Your task to perform on an android device: Open Yahoo.com Image 0: 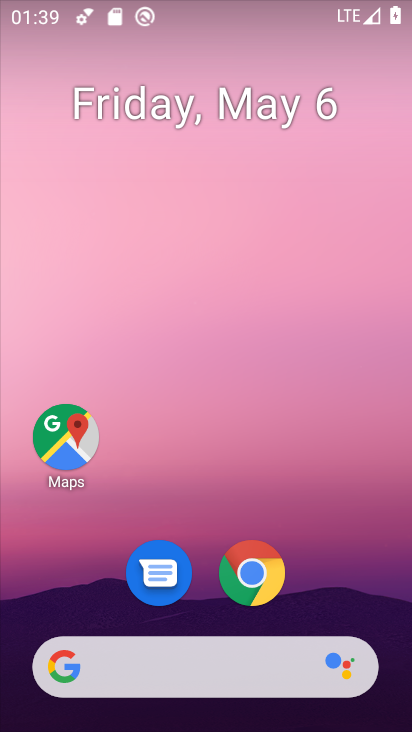
Step 0: drag from (350, 584) to (400, 192)
Your task to perform on an android device: Open Yahoo.com Image 1: 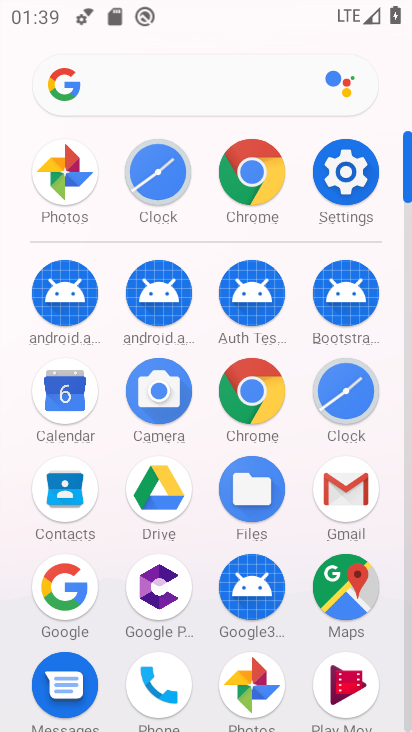
Step 1: click (249, 158)
Your task to perform on an android device: Open Yahoo.com Image 2: 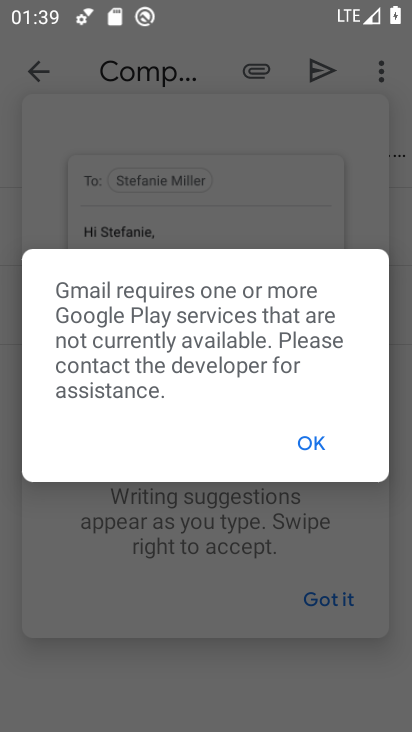
Step 2: click (310, 450)
Your task to perform on an android device: Open Yahoo.com Image 3: 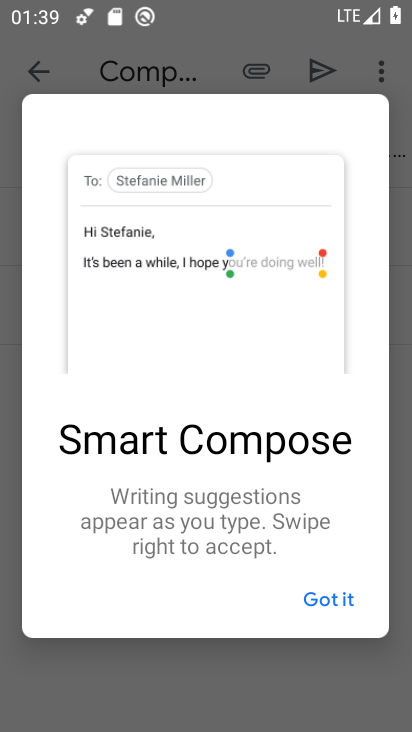
Step 3: click (319, 600)
Your task to perform on an android device: Open Yahoo.com Image 4: 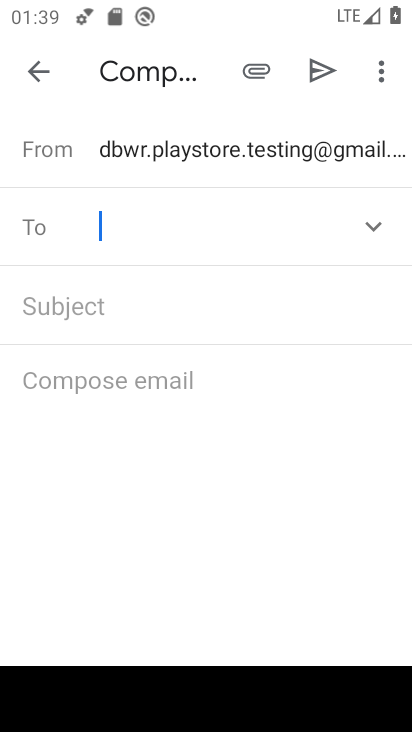
Step 4: click (54, 62)
Your task to perform on an android device: Open Yahoo.com Image 5: 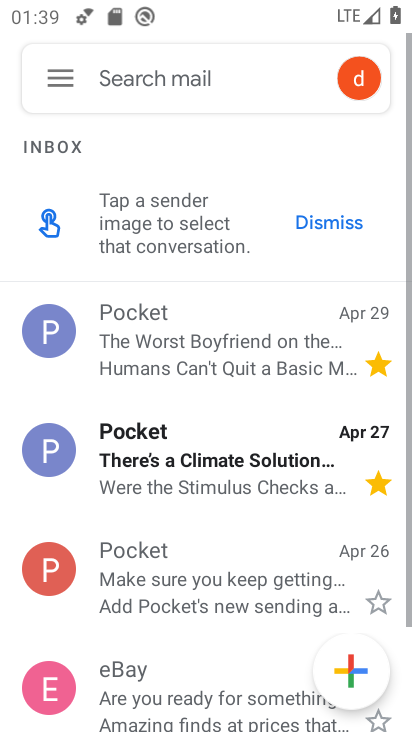
Step 5: press home button
Your task to perform on an android device: Open Yahoo.com Image 6: 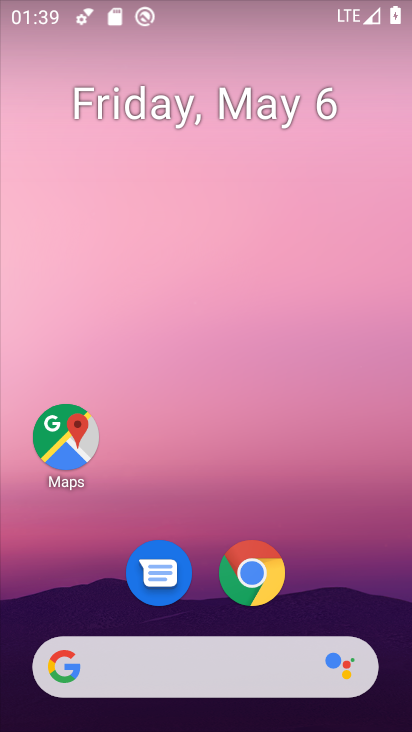
Step 6: drag from (336, 499) to (353, 263)
Your task to perform on an android device: Open Yahoo.com Image 7: 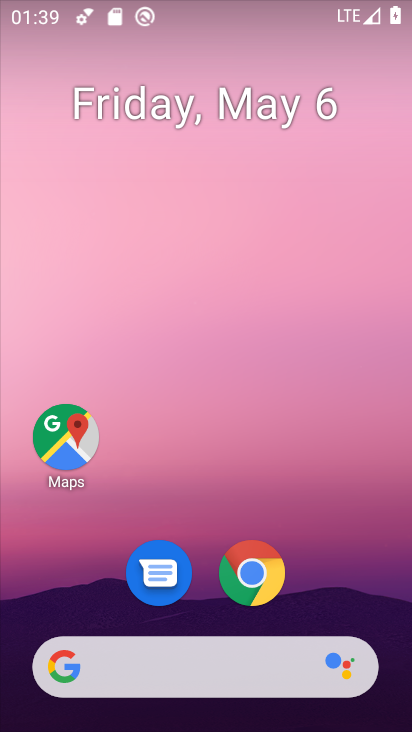
Step 7: drag from (321, 467) to (351, 220)
Your task to perform on an android device: Open Yahoo.com Image 8: 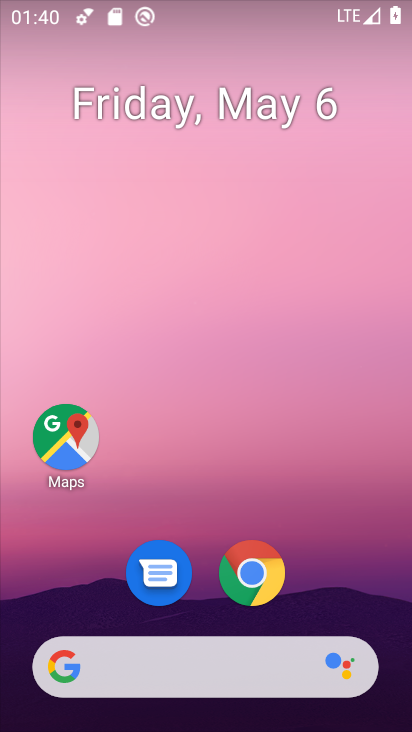
Step 8: drag from (297, 599) to (337, 82)
Your task to perform on an android device: Open Yahoo.com Image 9: 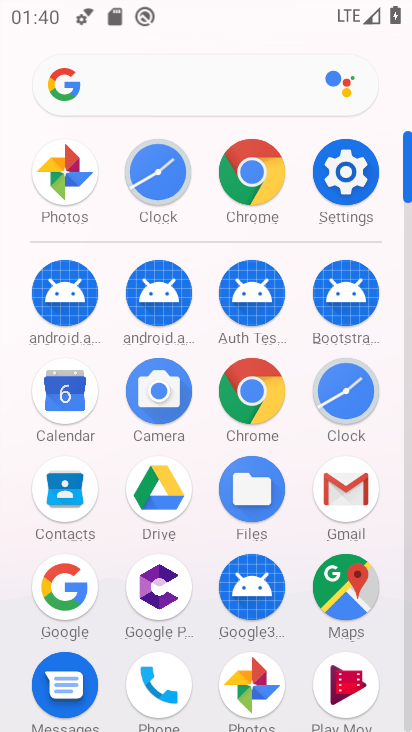
Step 9: click (244, 173)
Your task to perform on an android device: Open Yahoo.com Image 10: 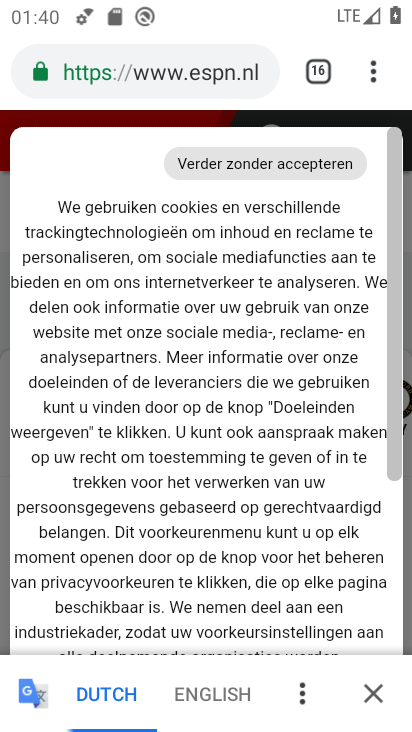
Step 10: click (353, 64)
Your task to perform on an android device: Open Yahoo.com Image 11: 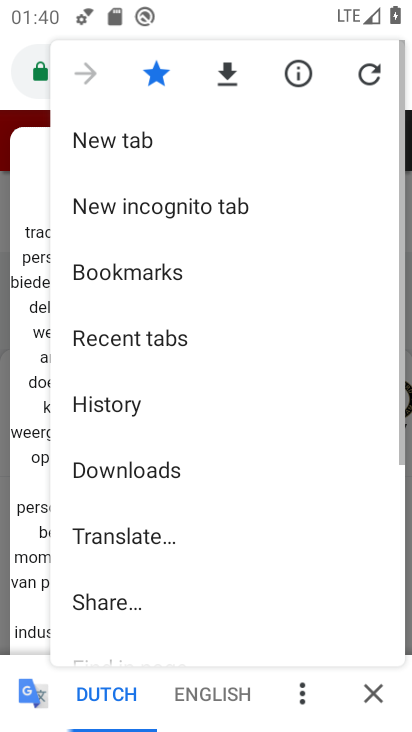
Step 11: click (127, 143)
Your task to perform on an android device: Open Yahoo.com Image 12: 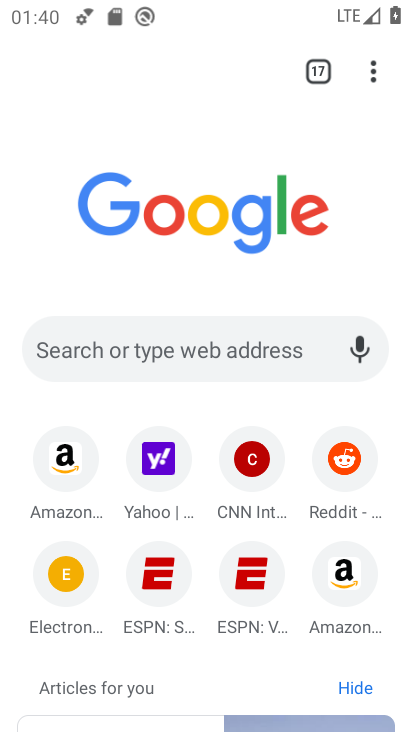
Step 12: click (160, 439)
Your task to perform on an android device: Open Yahoo.com Image 13: 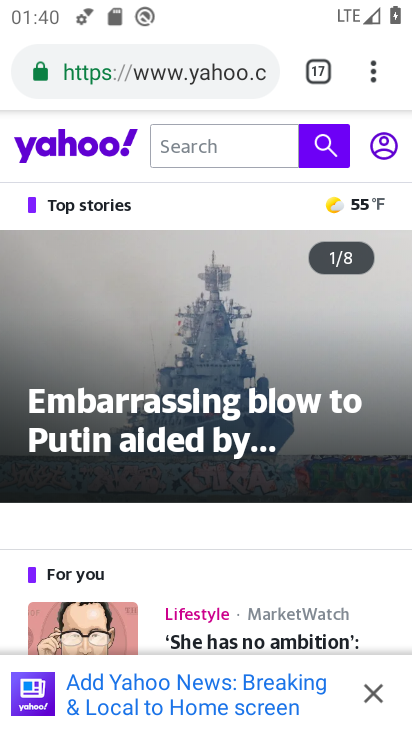
Step 13: task complete